Your task to perform on an android device: Clear all items from cart on ebay.com. Add razer huntsman to the cart on ebay.com Image 0: 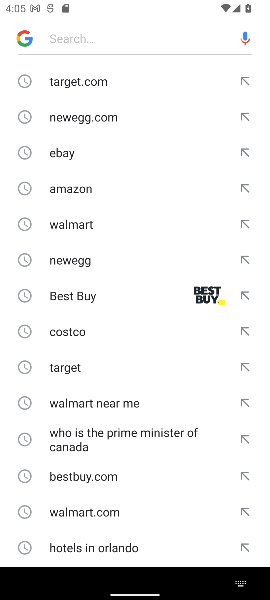
Step 0: click (66, 157)
Your task to perform on an android device: Clear all items from cart on ebay.com. Add razer huntsman to the cart on ebay.com Image 1: 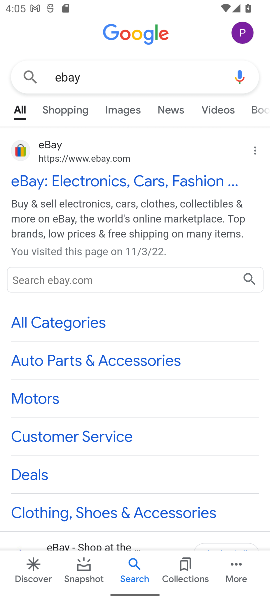
Step 1: click (71, 192)
Your task to perform on an android device: Clear all items from cart on ebay.com. Add razer huntsman to the cart on ebay.com Image 2: 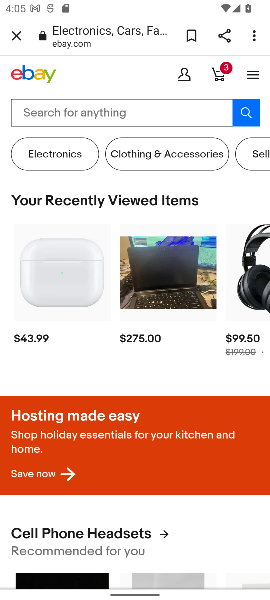
Step 2: click (222, 59)
Your task to perform on an android device: Clear all items from cart on ebay.com. Add razer huntsman to the cart on ebay.com Image 3: 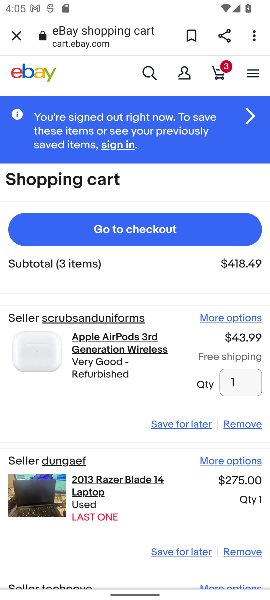
Step 3: click (243, 422)
Your task to perform on an android device: Clear all items from cart on ebay.com. Add razer huntsman to the cart on ebay.com Image 4: 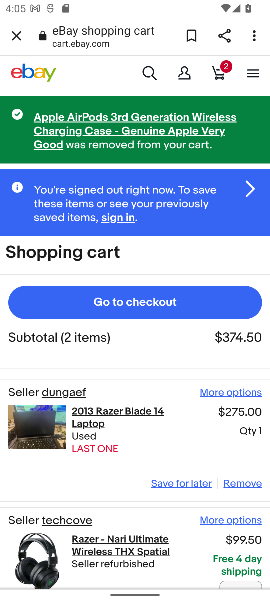
Step 4: click (246, 486)
Your task to perform on an android device: Clear all items from cart on ebay.com. Add razer huntsman to the cart on ebay.com Image 5: 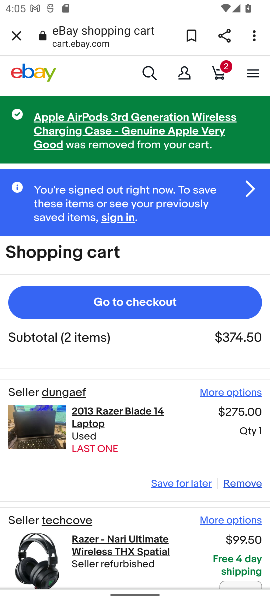
Step 5: click (251, 482)
Your task to perform on an android device: Clear all items from cart on ebay.com. Add razer huntsman to the cart on ebay.com Image 6: 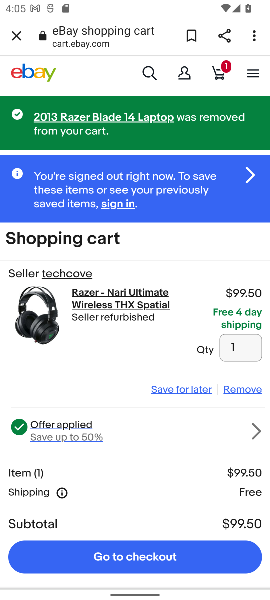
Step 6: click (249, 381)
Your task to perform on an android device: Clear all items from cart on ebay.com. Add razer huntsman to the cart on ebay.com Image 7: 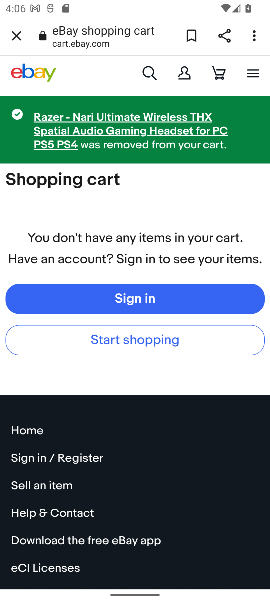
Step 7: click (151, 72)
Your task to perform on an android device: Clear all items from cart on ebay.com. Add razer huntsman to the cart on ebay.com Image 8: 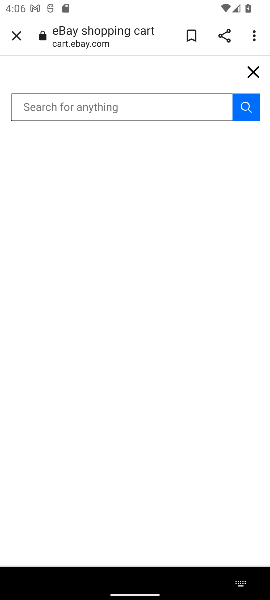
Step 8: type " razer huntsman"
Your task to perform on an android device: Clear all items from cart on ebay.com. Add razer huntsman to the cart on ebay.com Image 9: 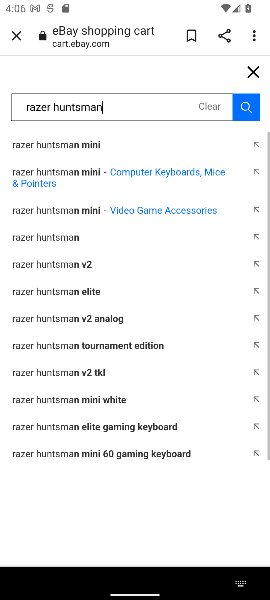
Step 9: click (249, 113)
Your task to perform on an android device: Clear all items from cart on ebay.com. Add razer huntsman to the cart on ebay.com Image 10: 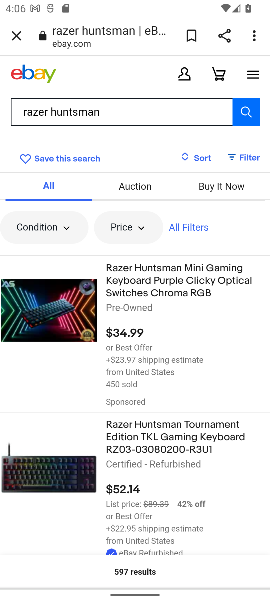
Step 10: click (119, 288)
Your task to perform on an android device: Clear all items from cart on ebay.com. Add razer huntsman to the cart on ebay.com Image 11: 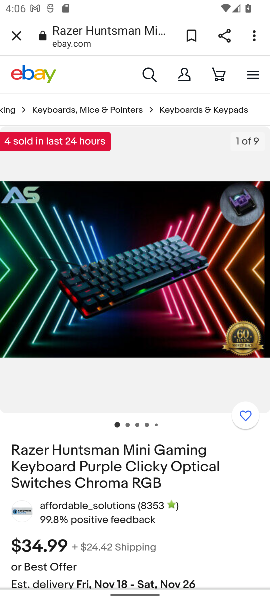
Step 11: drag from (143, 425) to (166, 213)
Your task to perform on an android device: Clear all items from cart on ebay.com. Add razer huntsman to the cart on ebay.com Image 12: 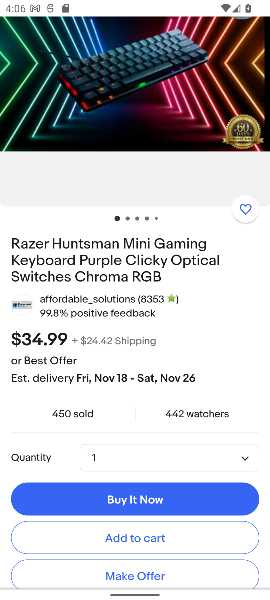
Step 12: drag from (102, 354) to (107, 254)
Your task to perform on an android device: Clear all items from cart on ebay.com. Add razer huntsman to the cart on ebay.com Image 13: 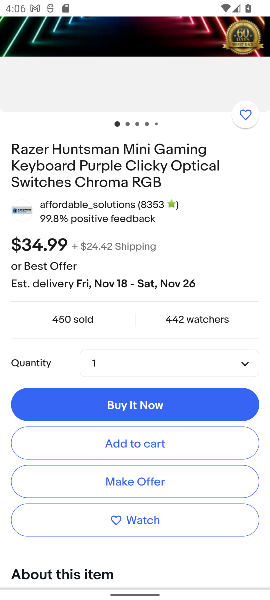
Step 13: click (121, 446)
Your task to perform on an android device: Clear all items from cart on ebay.com. Add razer huntsman to the cart on ebay.com Image 14: 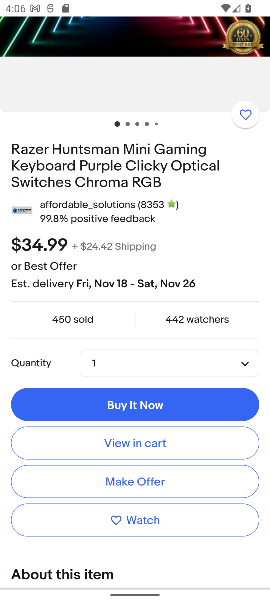
Step 14: task complete